Your task to perform on an android device: turn on improve location accuracy Image 0: 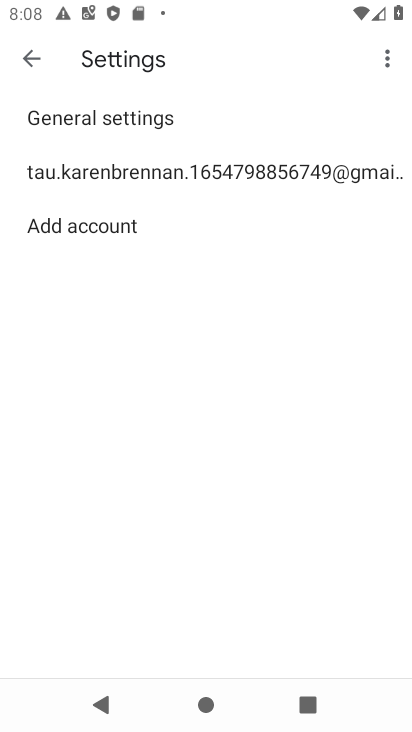
Step 0: press home button
Your task to perform on an android device: turn on improve location accuracy Image 1: 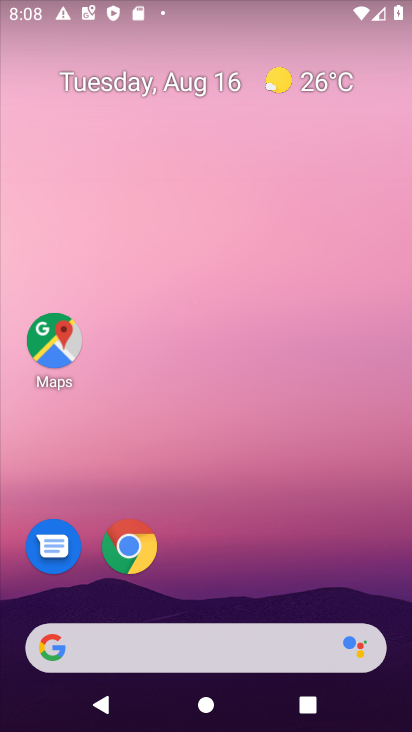
Step 1: drag from (221, 542) to (230, 18)
Your task to perform on an android device: turn on improve location accuracy Image 2: 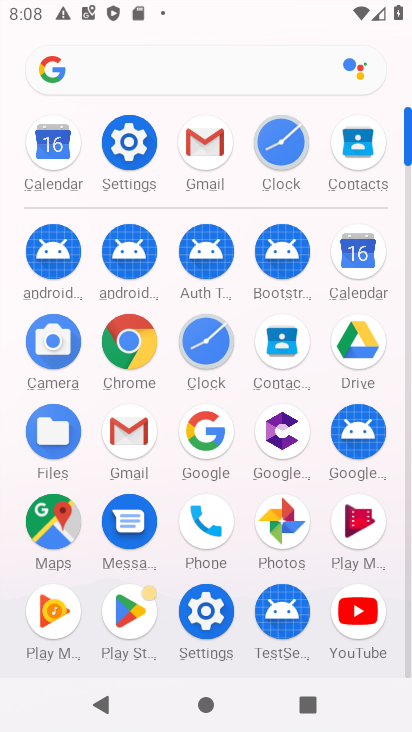
Step 2: click (126, 141)
Your task to perform on an android device: turn on improve location accuracy Image 3: 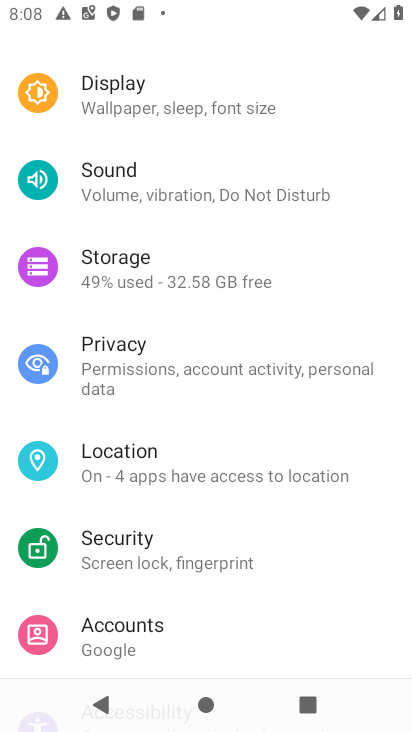
Step 3: click (160, 464)
Your task to perform on an android device: turn on improve location accuracy Image 4: 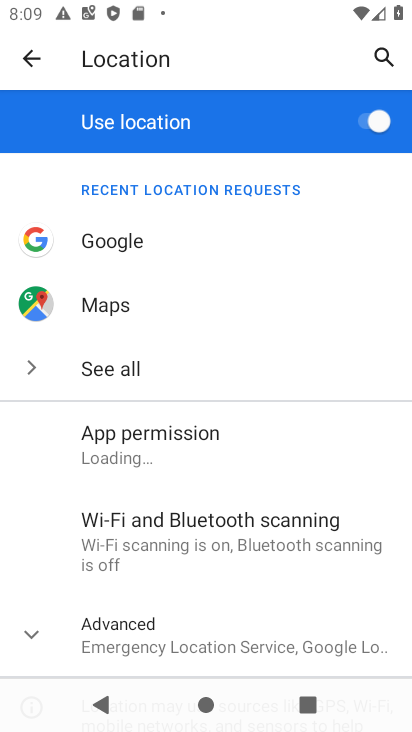
Step 4: click (30, 627)
Your task to perform on an android device: turn on improve location accuracy Image 5: 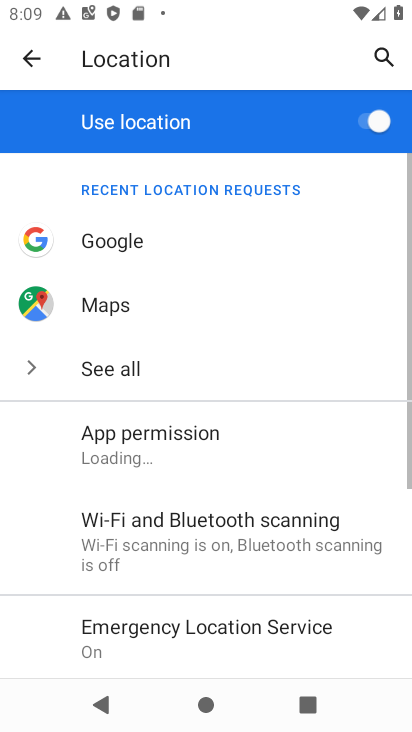
Step 5: task complete